Your task to perform on an android device: delete location history Image 0: 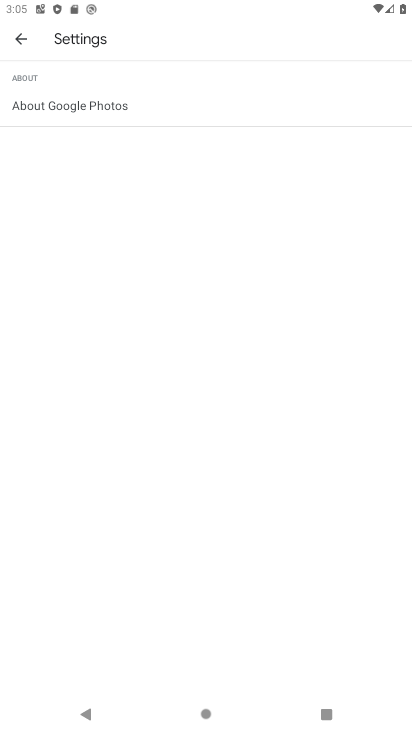
Step 0: press home button
Your task to perform on an android device: delete location history Image 1: 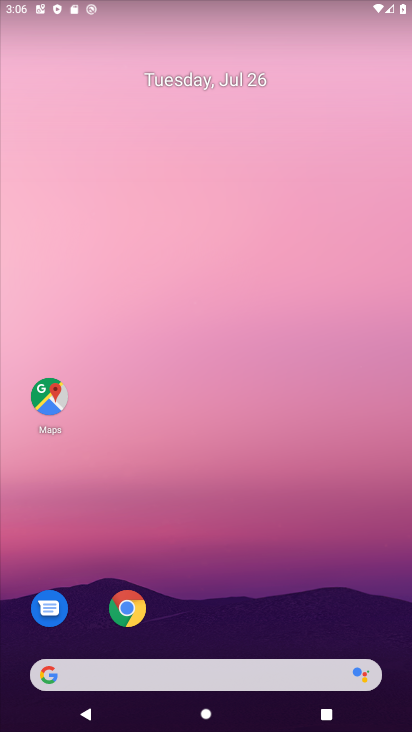
Step 1: click (125, 614)
Your task to perform on an android device: delete location history Image 2: 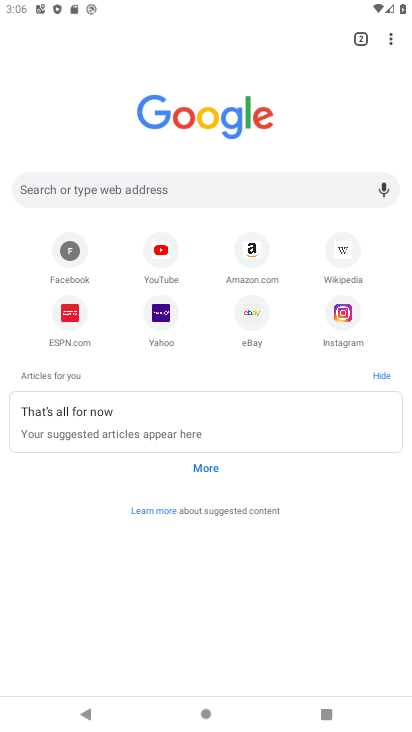
Step 2: click (393, 38)
Your task to perform on an android device: delete location history Image 3: 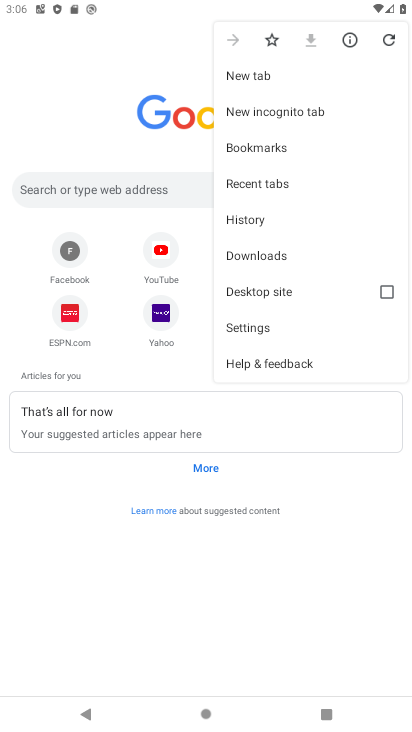
Step 3: click (253, 332)
Your task to perform on an android device: delete location history Image 4: 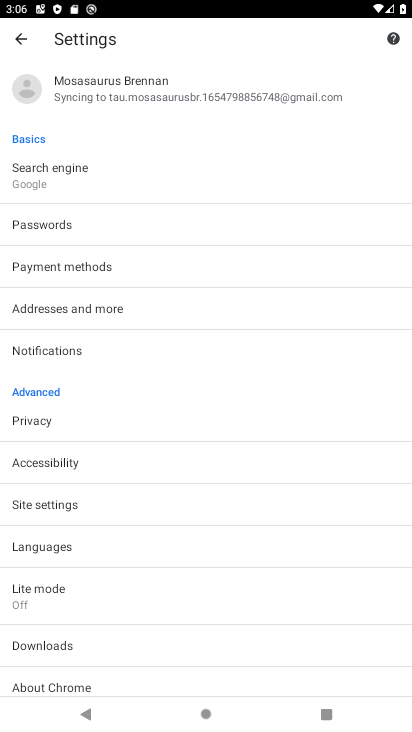
Step 4: task complete